Your task to perform on an android device: turn off wifi Image 0: 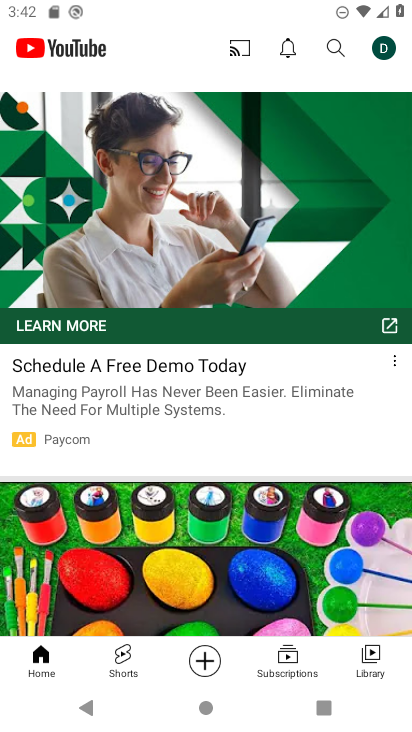
Step 0: press home button
Your task to perform on an android device: turn off wifi Image 1: 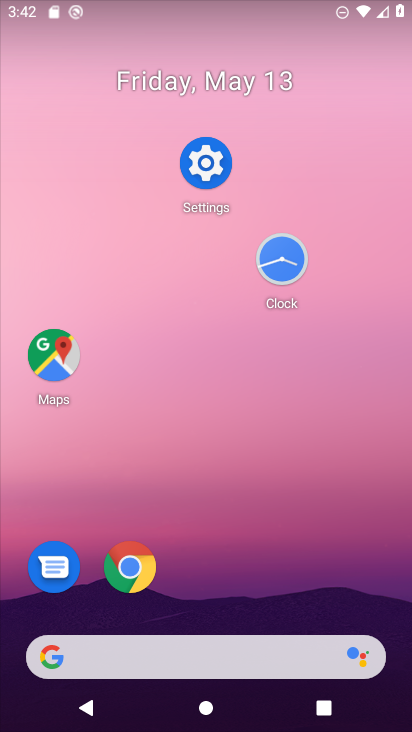
Step 1: click (211, 188)
Your task to perform on an android device: turn off wifi Image 2: 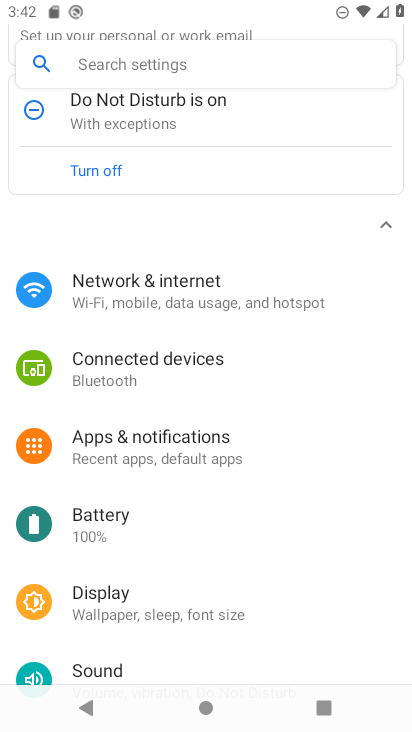
Step 2: click (172, 316)
Your task to perform on an android device: turn off wifi Image 3: 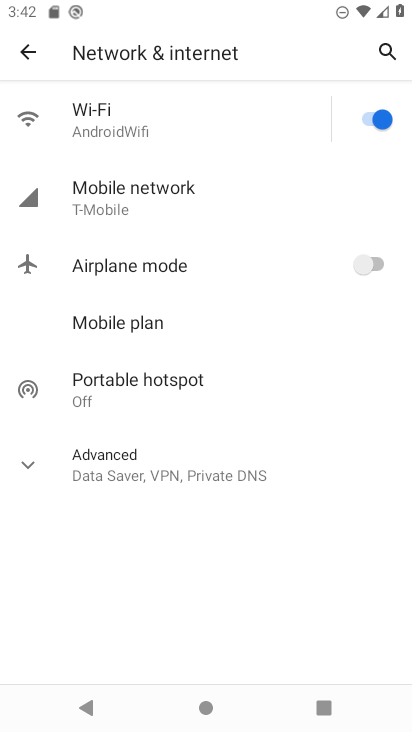
Step 3: click (351, 117)
Your task to perform on an android device: turn off wifi Image 4: 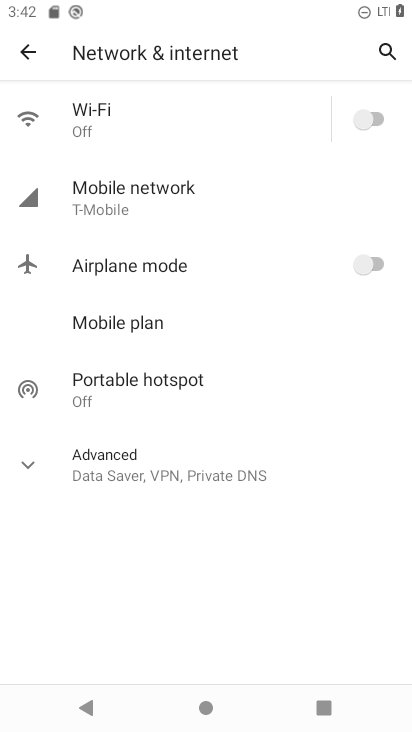
Step 4: task complete